Your task to perform on an android device: turn off notifications in google photos Image 0: 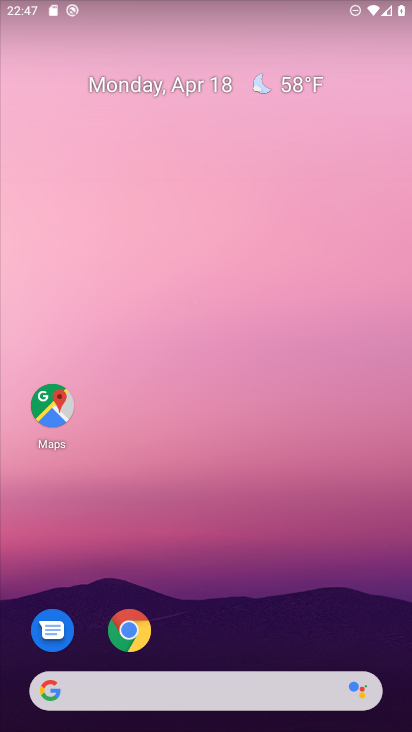
Step 0: drag from (218, 662) to (167, 37)
Your task to perform on an android device: turn off notifications in google photos Image 1: 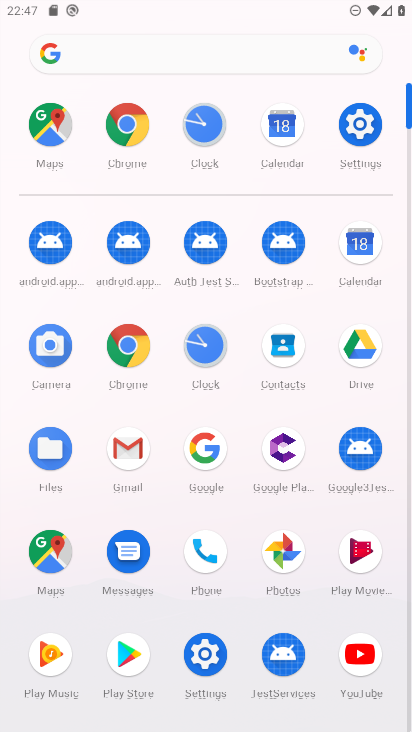
Step 1: click (278, 557)
Your task to perform on an android device: turn off notifications in google photos Image 2: 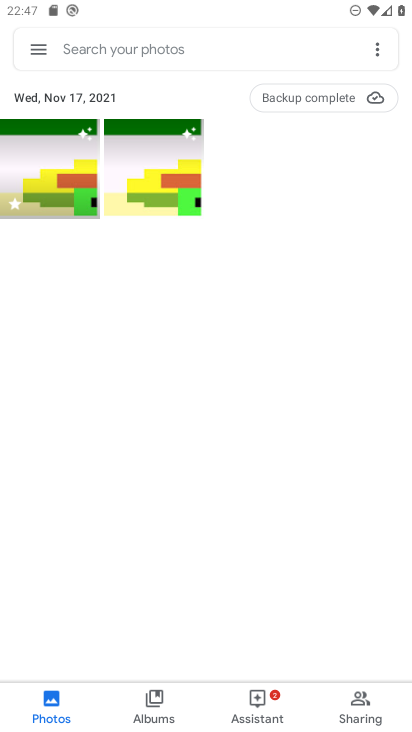
Step 2: click (27, 44)
Your task to perform on an android device: turn off notifications in google photos Image 3: 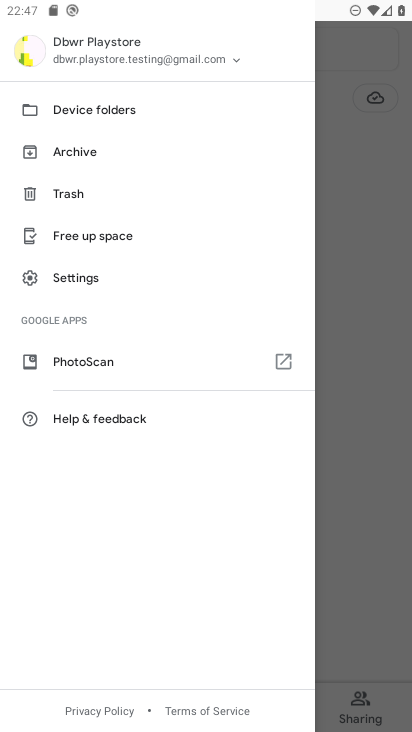
Step 3: click (94, 281)
Your task to perform on an android device: turn off notifications in google photos Image 4: 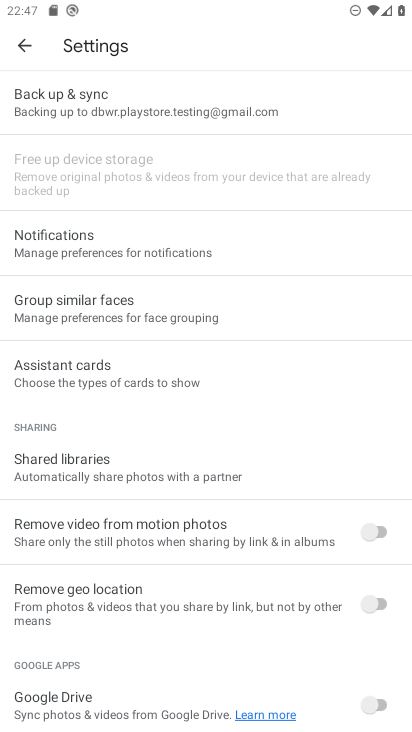
Step 4: click (72, 245)
Your task to perform on an android device: turn off notifications in google photos Image 5: 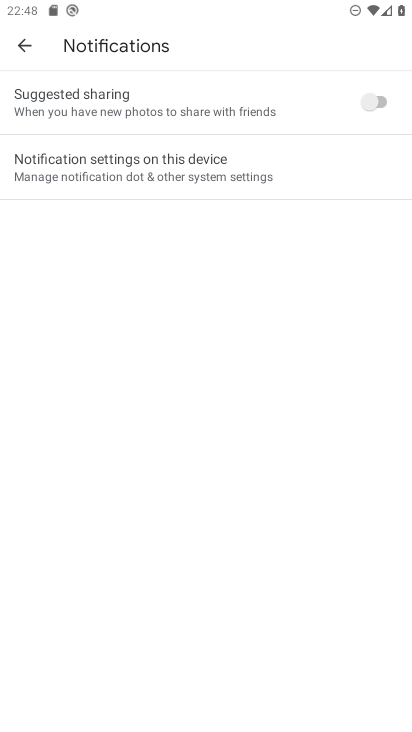
Step 5: click (167, 171)
Your task to perform on an android device: turn off notifications in google photos Image 6: 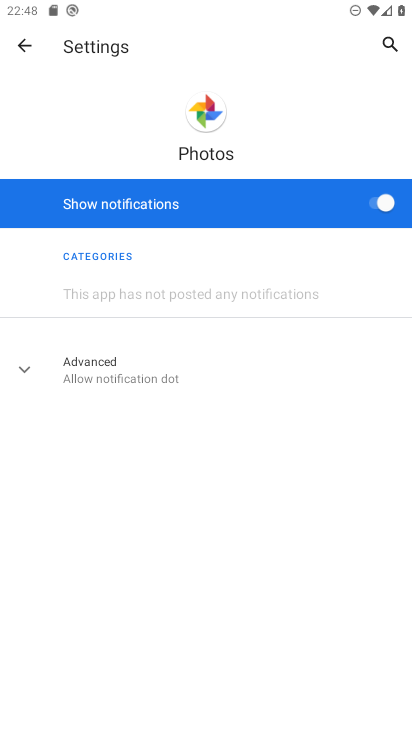
Step 6: click (364, 208)
Your task to perform on an android device: turn off notifications in google photos Image 7: 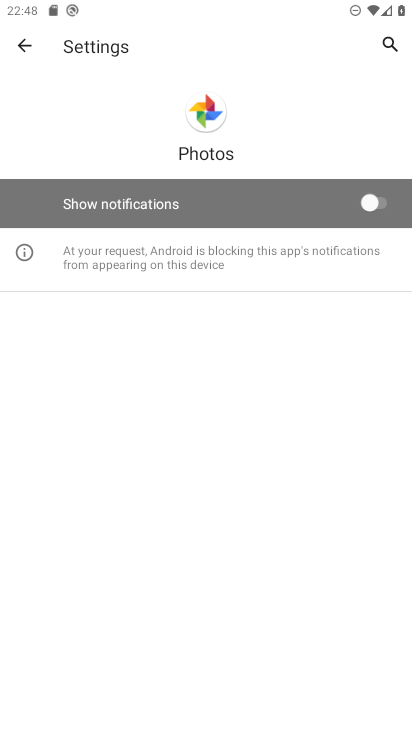
Step 7: task complete